Your task to perform on an android device: Open CNN.com Image 0: 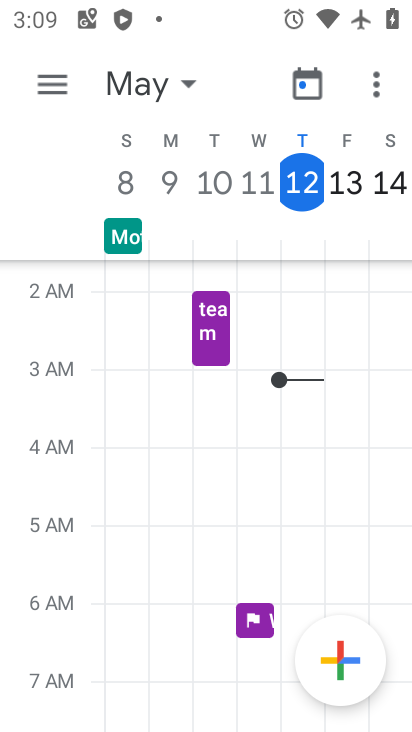
Step 0: press home button
Your task to perform on an android device: Open CNN.com Image 1: 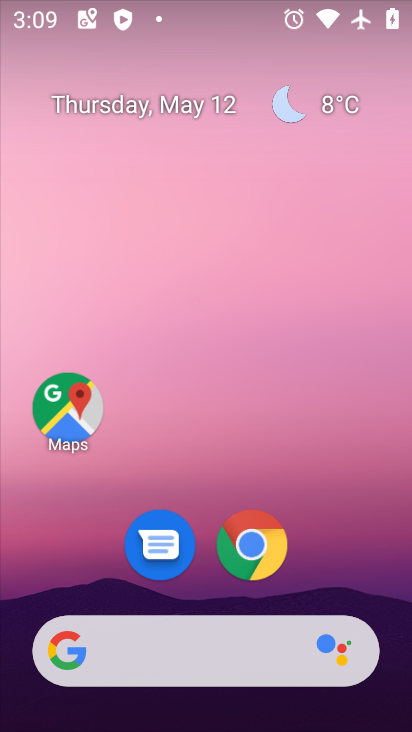
Step 1: click (257, 554)
Your task to perform on an android device: Open CNN.com Image 2: 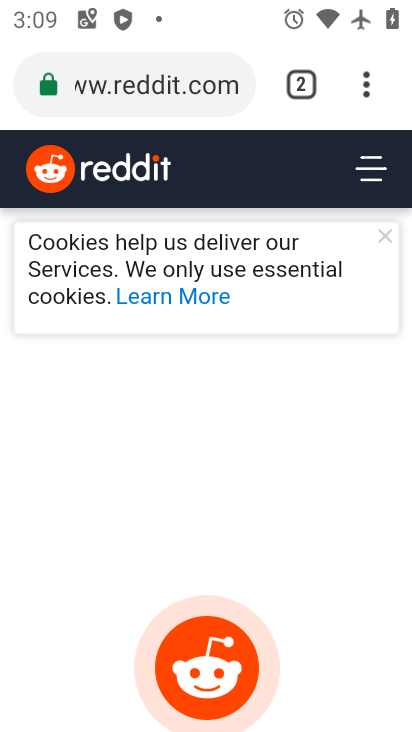
Step 2: click (158, 72)
Your task to perform on an android device: Open CNN.com Image 3: 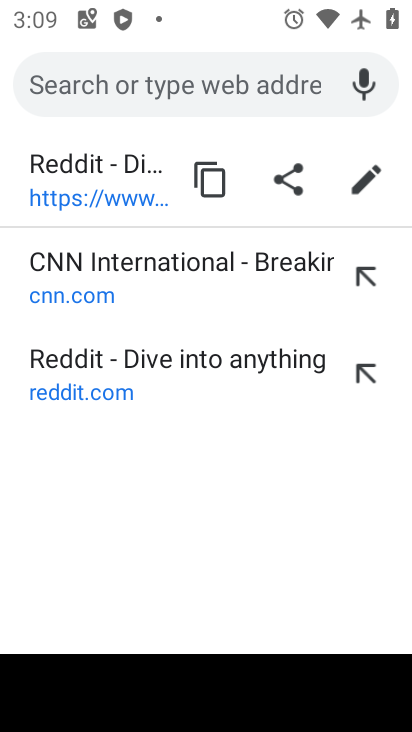
Step 3: type "cnn.com"
Your task to perform on an android device: Open CNN.com Image 4: 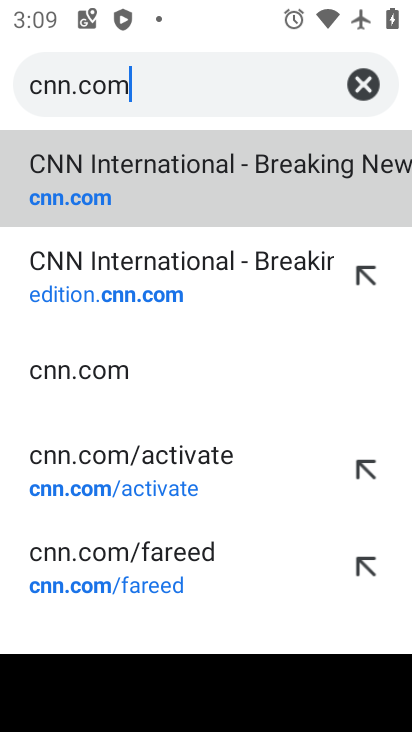
Step 4: click (70, 182)
Your task to perform on an android device: Open CNN.com Image 5: 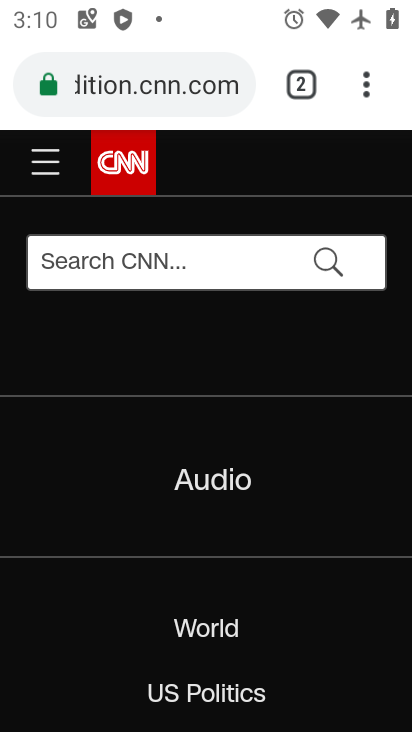
Step 5: task complete